Your task to perform on an android device: Go to notification settings Image 0: 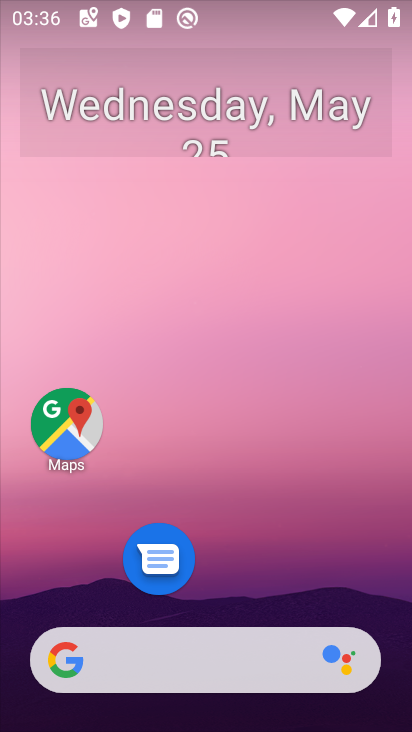
Step 0: drag from (229, 603) to (252, 35)
Your task to perform on an android device: Go to notification settings Image 1: 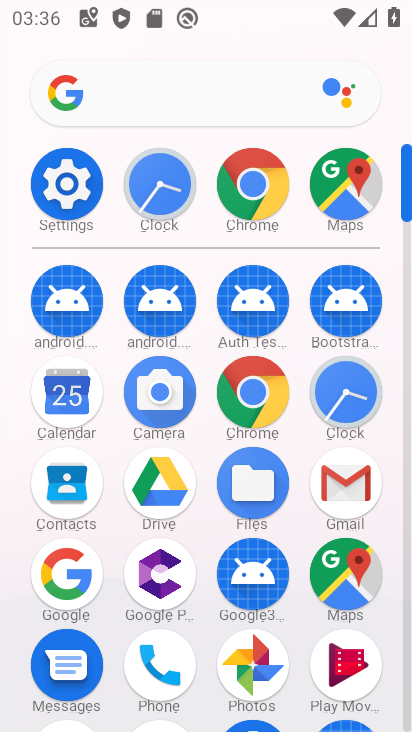
Step 1: click (62, 176)
Your task to perform on an android device: Go to notification settings Image 2: 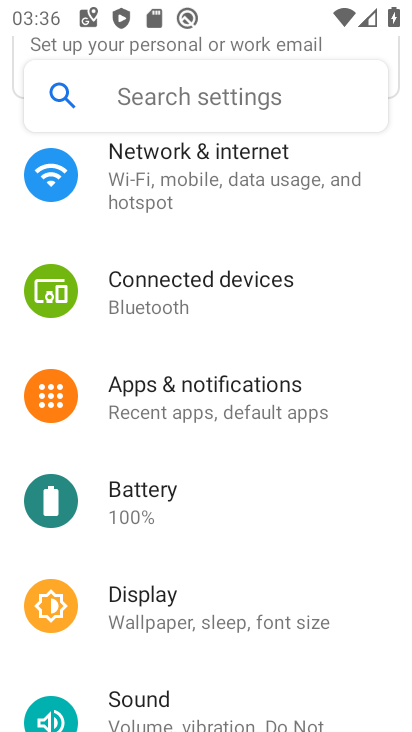
Step 2: click (93, 385)
Your task to perform on an android device: Go to notification settings Image 3: 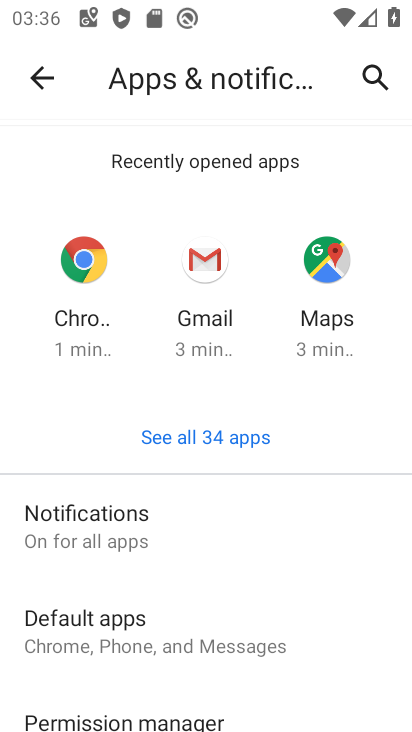
Step 3: click (151, 523)
Your task to perform on an android device: Go to notification settings Image 4: 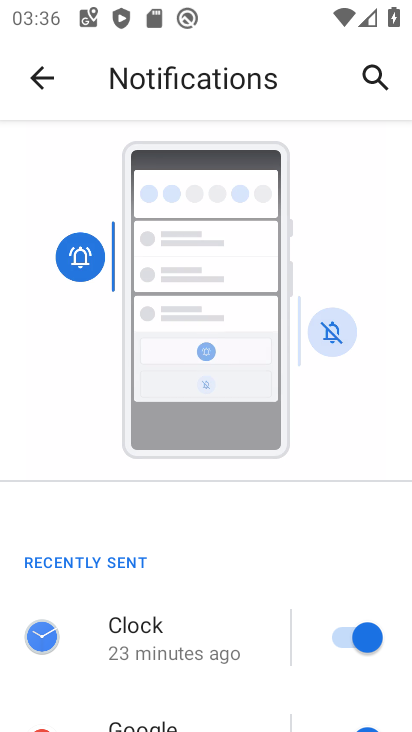
Step 4: drag from (231, 689) to (253, 15)
Your task to perform on an android device: Go to notification settings Image 5: 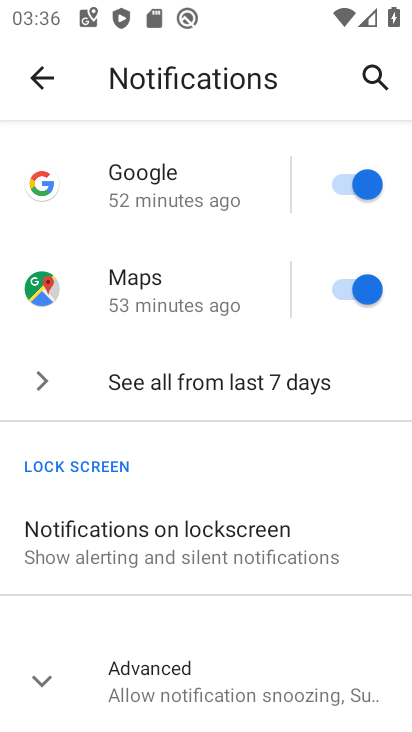
Step 5: drag from (218, 670) to (233, 318)
Your task to perform on an android device: Go to notification settings Image 6: 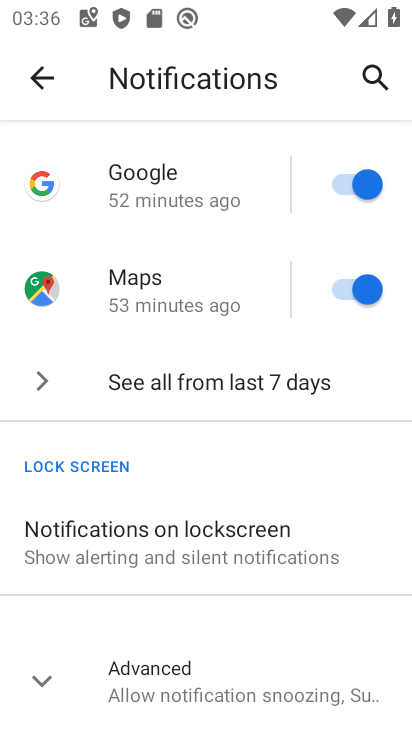
Step 6: click (37, 667)
Your task to perform on an android device: Go to notification settings Image 7: 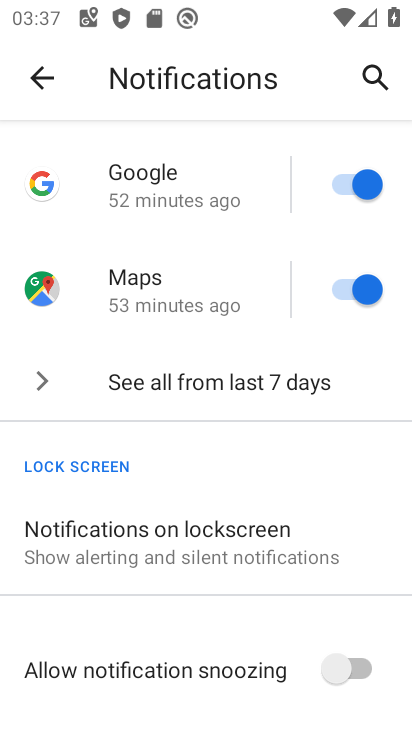
Step 7: task complete